Your task to perform on an android device: choose inbox layout in the gmail app Image 0: 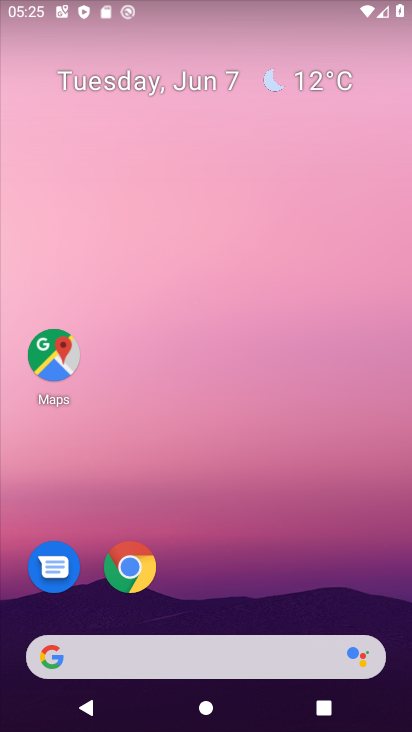
Step 0: drag from (228, 508) to (178, 12)
Your task to perform on an android device: choose inbox layout in the gmail app Image 1: 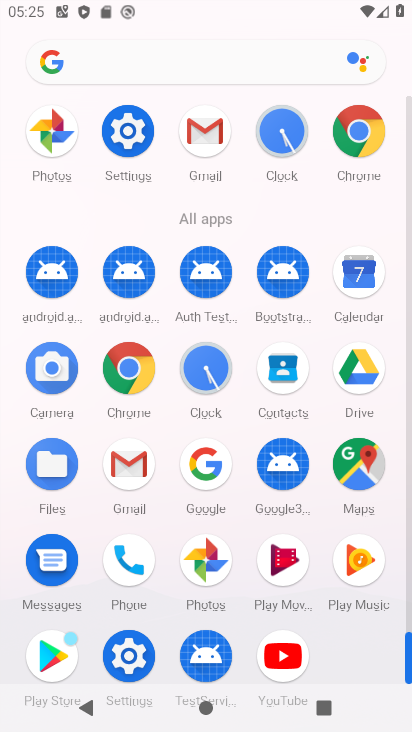
Step 1: drag from (21, 587) to (26, 272)
Your task to perform on an android device: choose inbox layout in the gmail app Image 2: 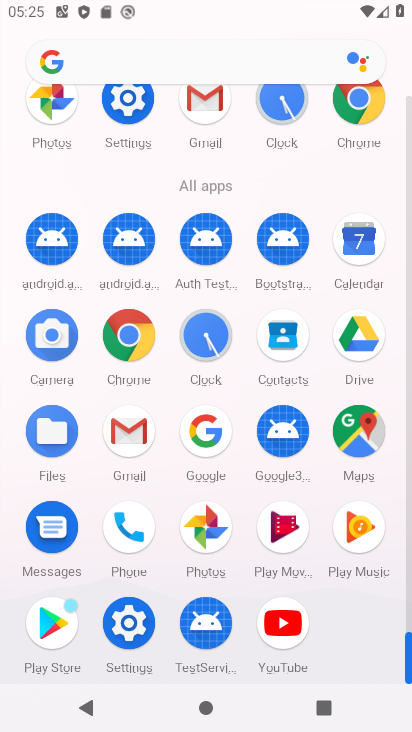
Step 2: click (125, 422)
Your task to perform on an android device: choose inbox layout in the gmail app Image 3: 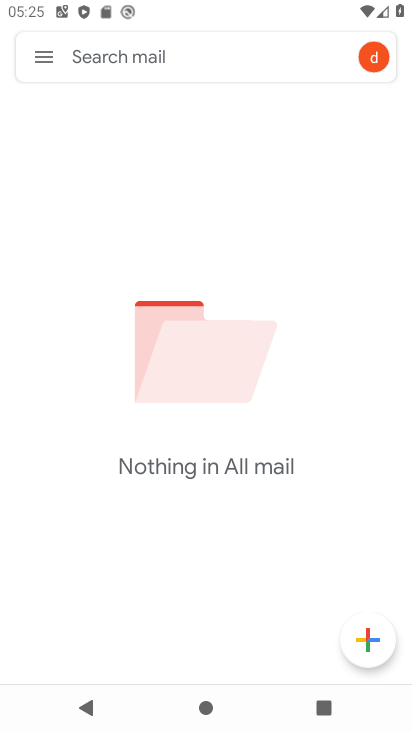
Step 3: click (42, 59)
Your task to perform on an android device: choose inbox layout in the gmail app Image 4: 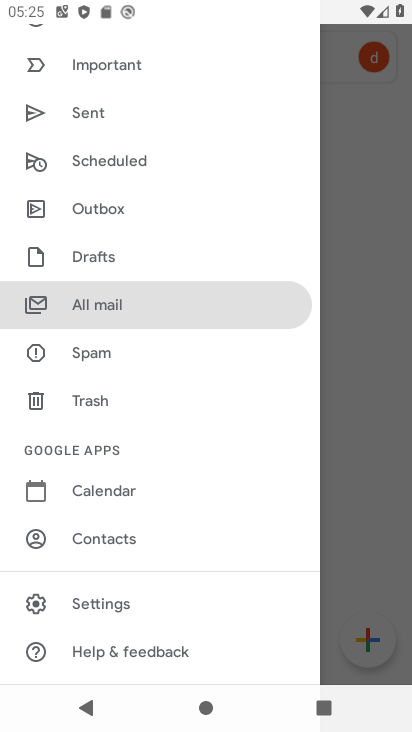
Step 4: drag from (146, 646) to (199, 203)
Your task to perform on an android device: choose inbox layout in the gmail app Image 5: 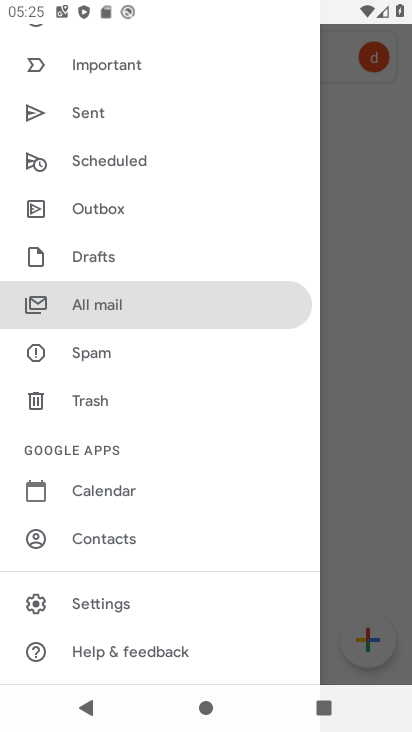
Step 5: click (139, 584)
Your task to perform on an android device: choose inbox layout in the gmail app Image 6: 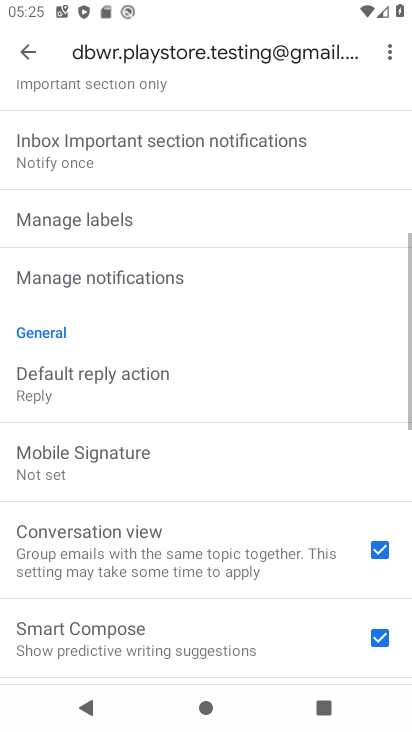
Step 6: drag from (211, 164) to (232, 589)
Your task to perform on an android device: choose inbox layout in the gmail app Image 7: 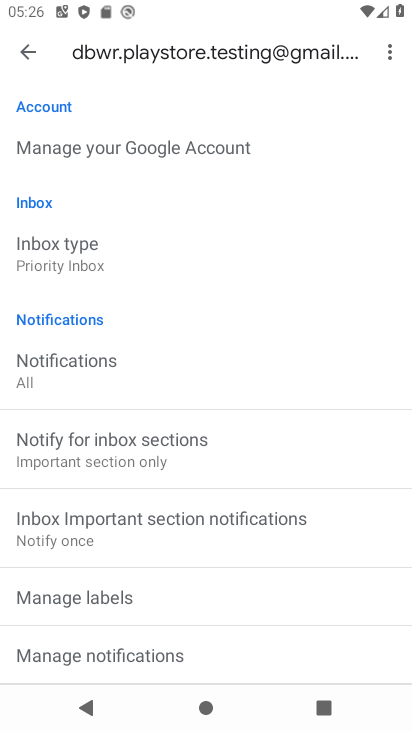
Step 7: click (111, 249)
Your task to perform on an android device: choose inbox layout in the gmail app Image 8: 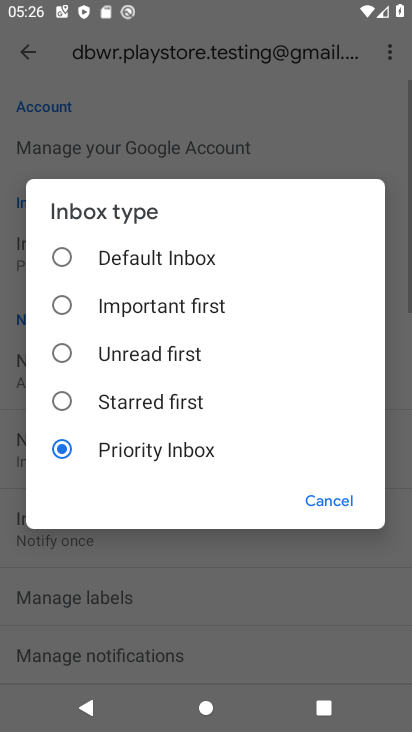
Step 8: click (148, 269)
Your task to perform on an android device: choose inbox layout in the gmail app Image 9: 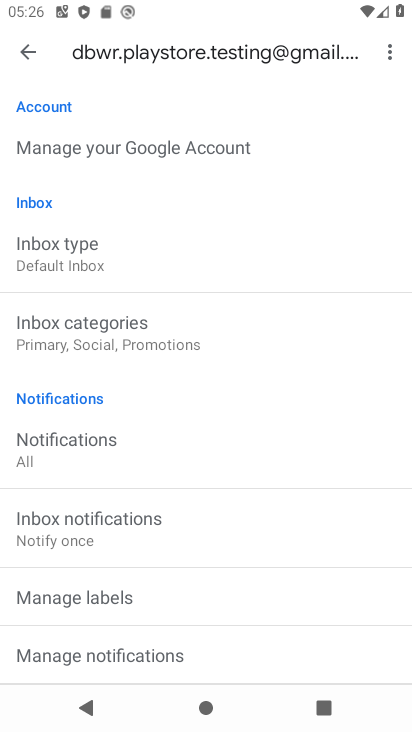
Step 9: task complete